Your task to perform on an android device: toggle sleep mode Image 0: 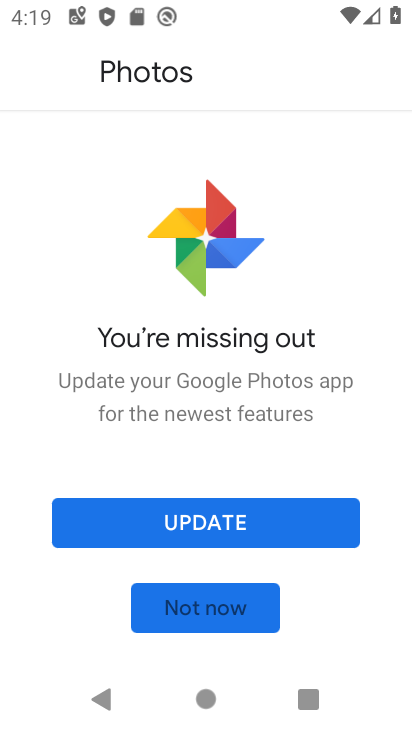
Step 0: press home button
Your task to perform on an android device: toggle sleep mode Image 1: 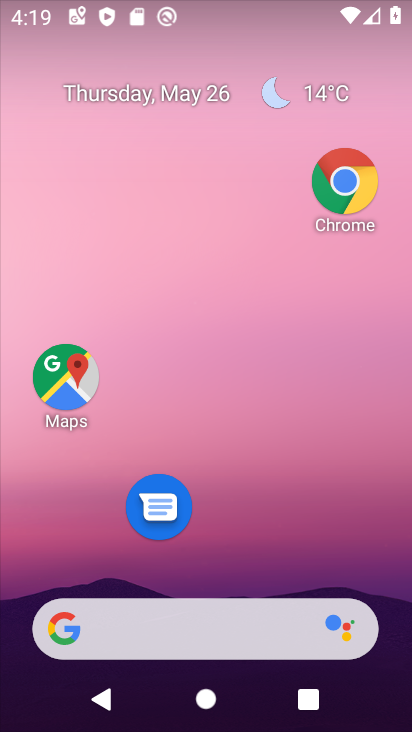
Step 1: drag from (247, 576) to (261, 116)
Your task to perform on an android device: toggle sleep mode Image 2: 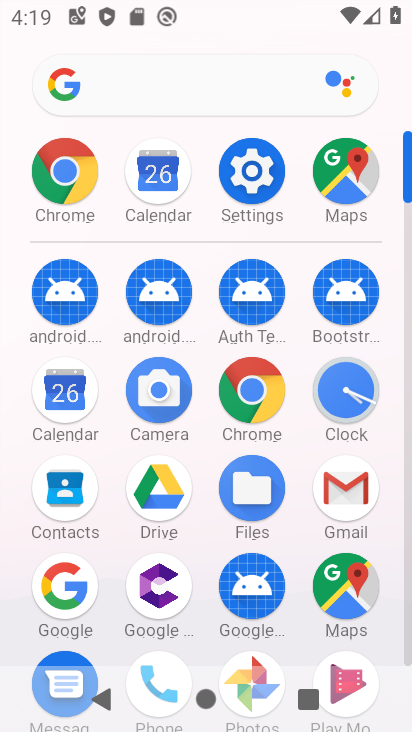
Step 2: click (250, 170)
Your task to perform on an android device: toggle sleep mode Image 3: 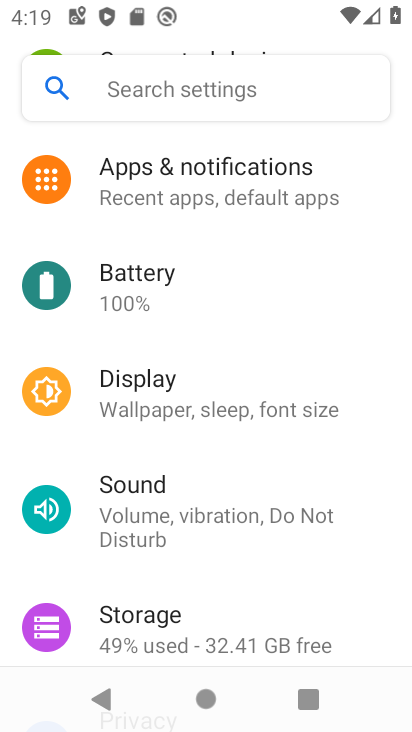
Step 3: drag from (240, 257) to (222, 526)
Your task to perform on an android device: toggle sleep mode Image 4: 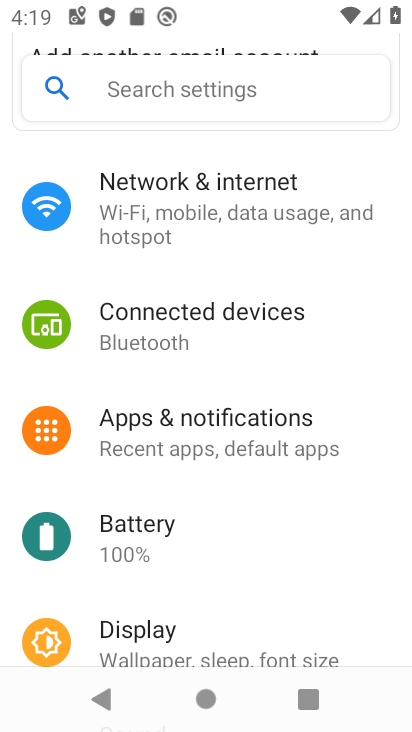
Step 4: click (189, 576)
Your task to perform on an android device: toggle sleep mode Image 5: 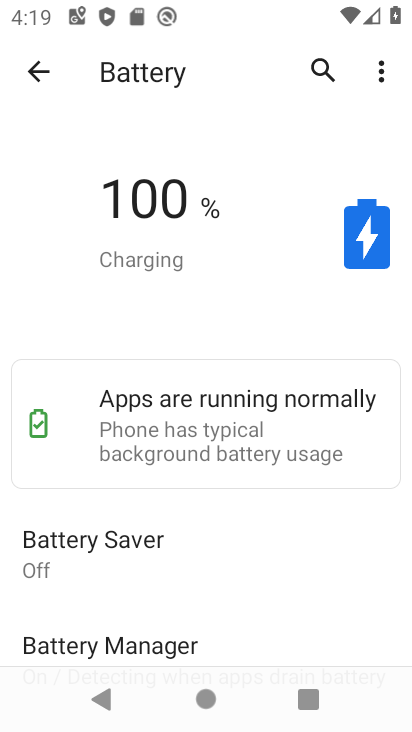
Step 5: click (38, 80)
Your task to perform on an android device: toggle sleep mode Image 6: 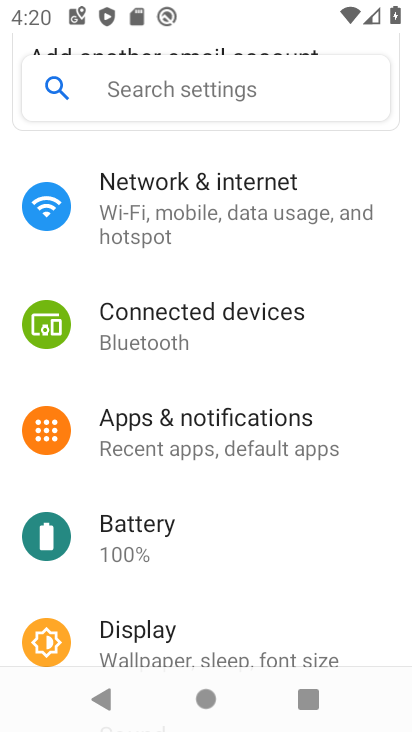
Step 6: click (112, 640)
Your task to perform on an android device: toggle sleep mode Image 7: 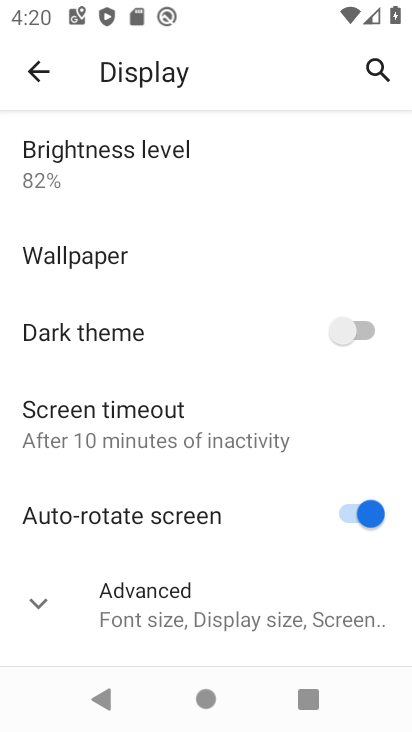
Step 7: click (165, 422)
Your task to perform on an android device: toggle sleep mode Image 8: 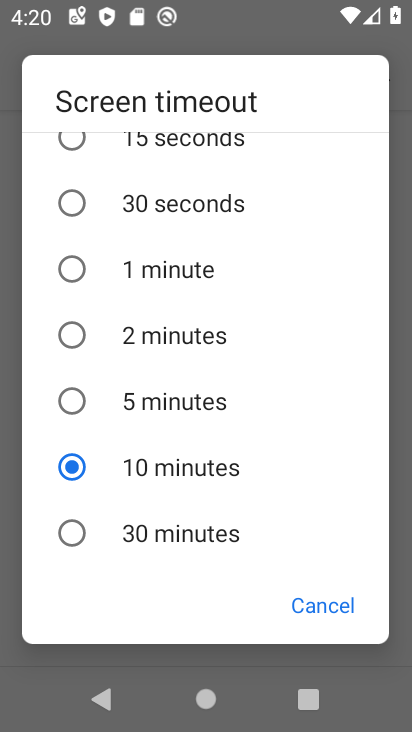
Step 8: click (172, 525)
Your task to perform on an android device: toggle sleep mode Image 9: 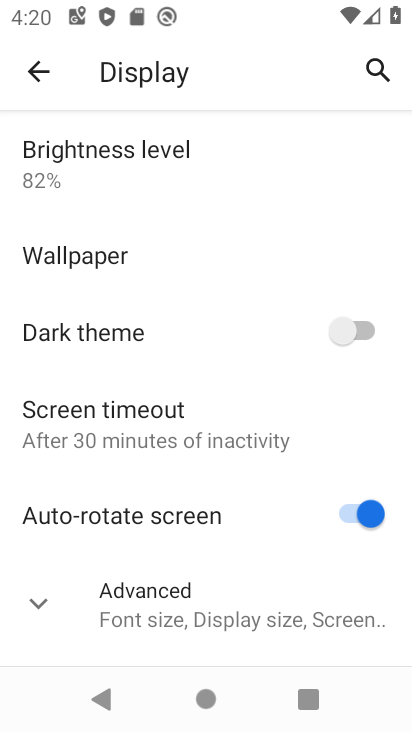
Step 9: task complete